Your task to perform on an android device: Open battery settings Image 0: 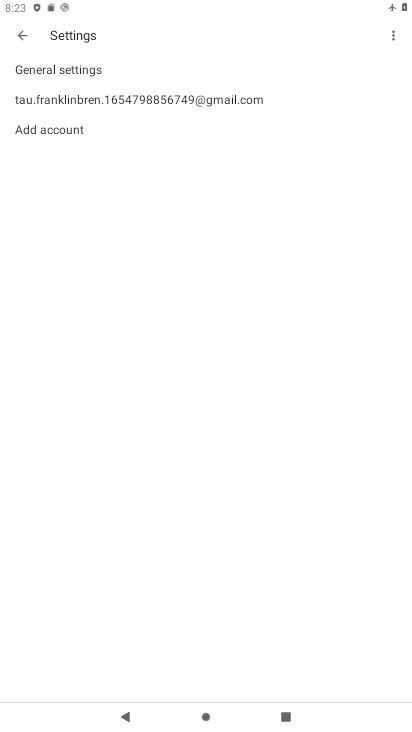
Step 0: press home button
Your task to perform on an android device: Open battery settings Image 1: 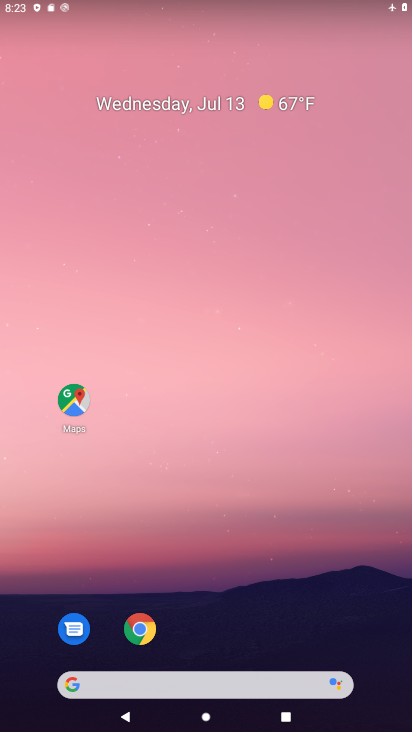
Step 1: drag from (221, 639) to (210, 2)
Your task to perform on an android device: Open battery settings Image 2: 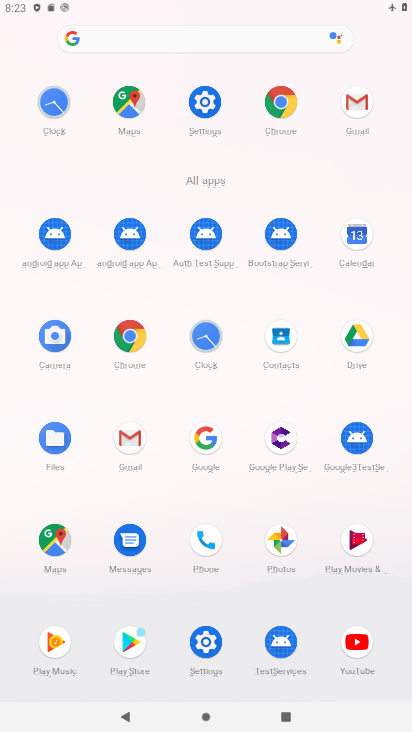
Step 2: click (213, 649)
Your task to perform on an android device: Open battery settings Image 3: 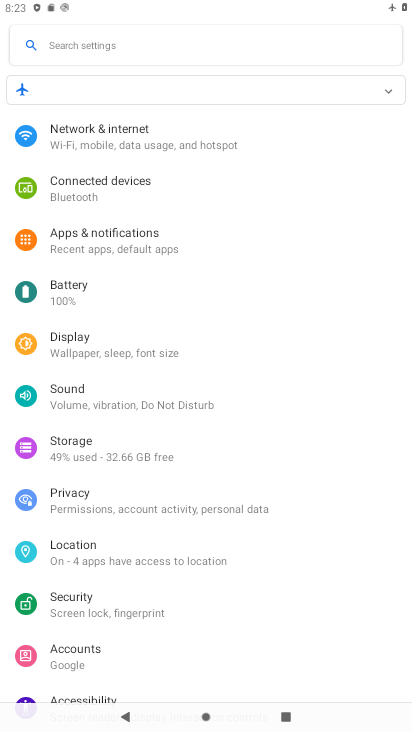
Step 3: click (110, 291)
Your task to perform on an android device: Open battery settings Image 4: 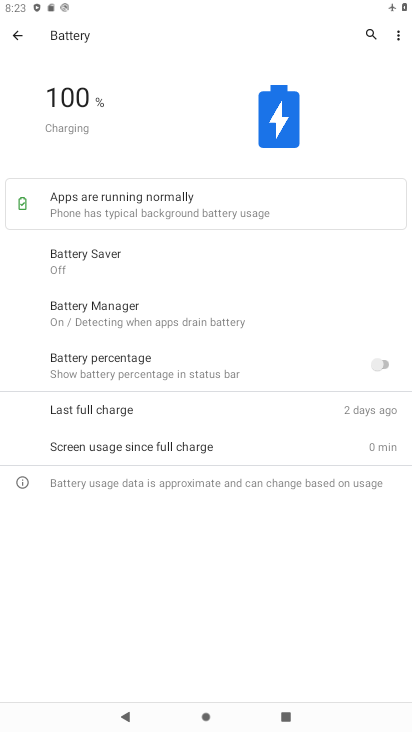
Step 4: click (401, 29)
Your task to perform on an android device: Open battery settings Image 5: 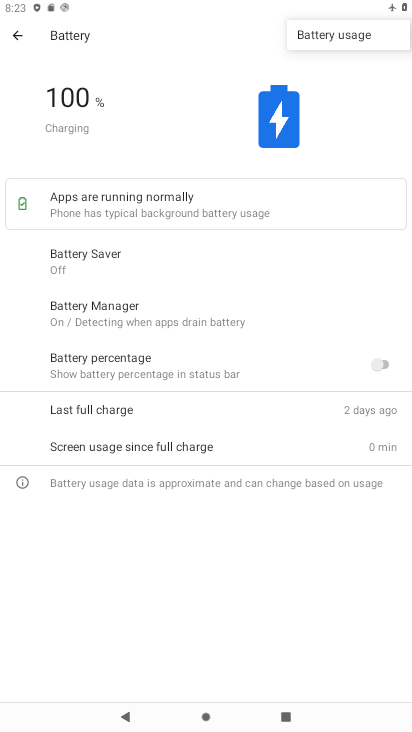
Step 5: task complete